Your task to perform on an android device: Is it going to rain this weekend? Image 0: 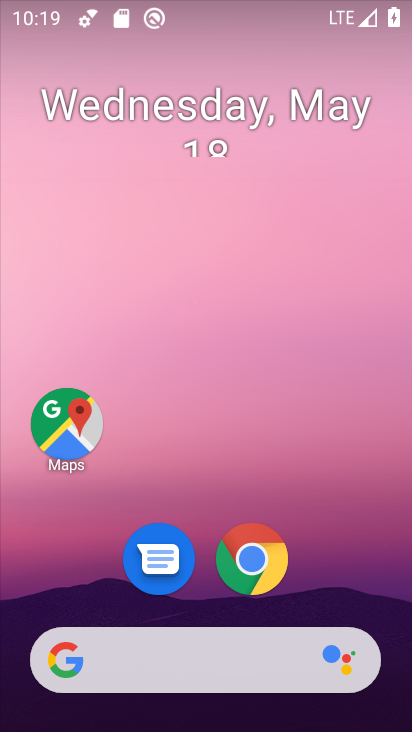
Step 0: click (197, 665)
Your task to perform on an android device: Is it going to rain this weekend? Image 1: 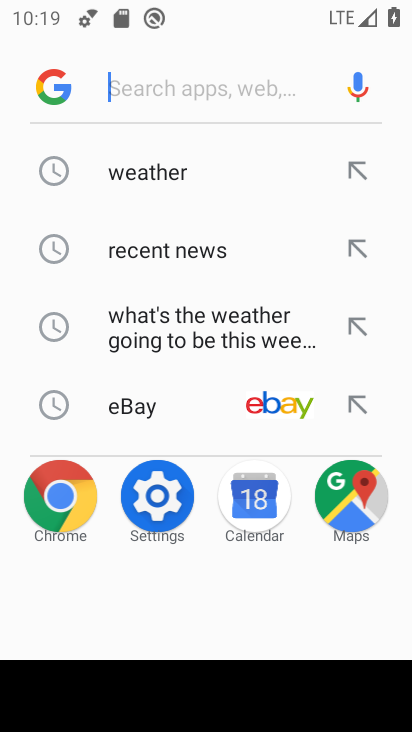
Step 1: click (126, 168)
Your task to perform on an android device: Is it going to rain this weekend? Image 2: 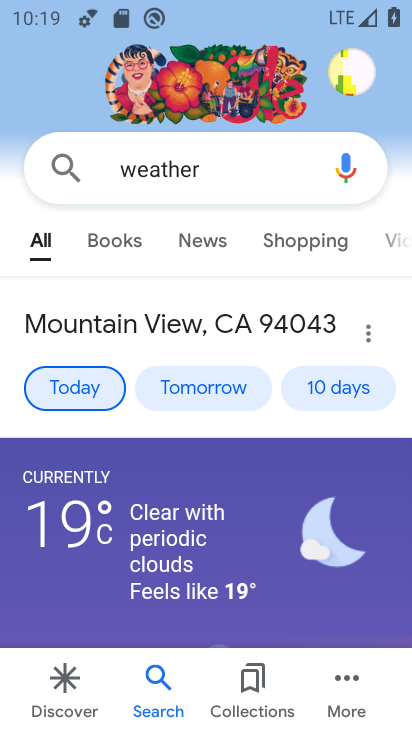
Step 2: drag from (221, 406) to (231, 163)
Your task to perform on an android device: Is it going to rain this weekend? Image 3: 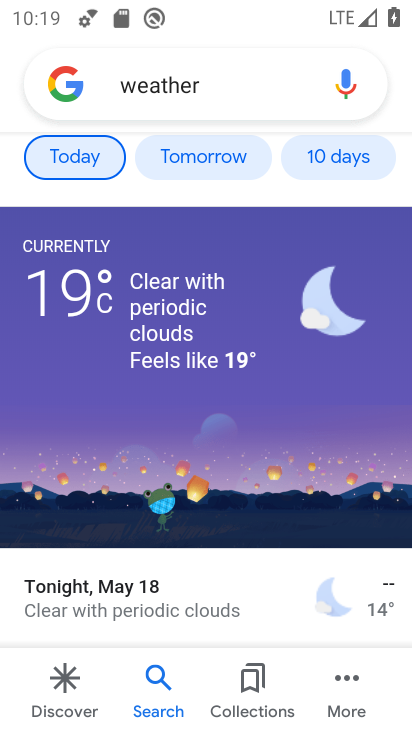
Step 3: click (323, 165)
Your task to perform on an android device: Is it going to rain this weekend? Image 4: 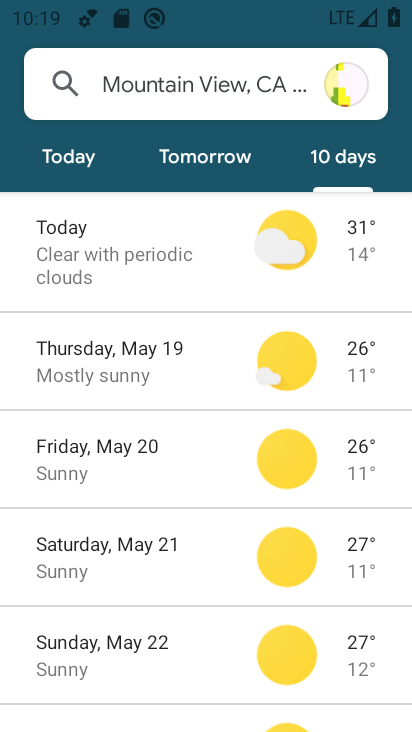
Step 4: task complete